Your task to perform on an android device: What's the weather going to be tomorrow? Image 0: 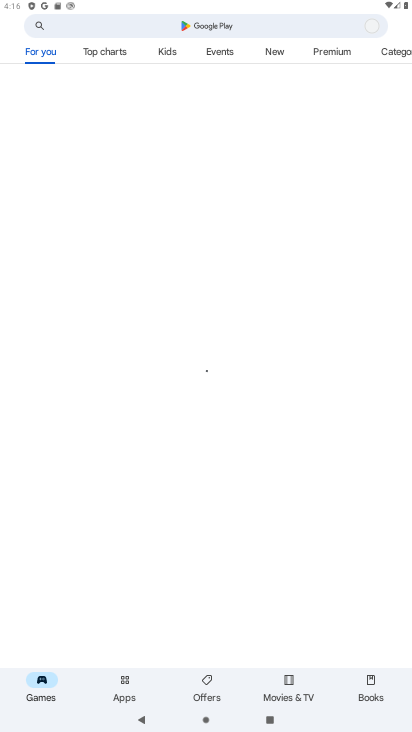
Step 0: press home button
Your task to perform on an android device: What's the weather going to be tomorrow? Image 1: 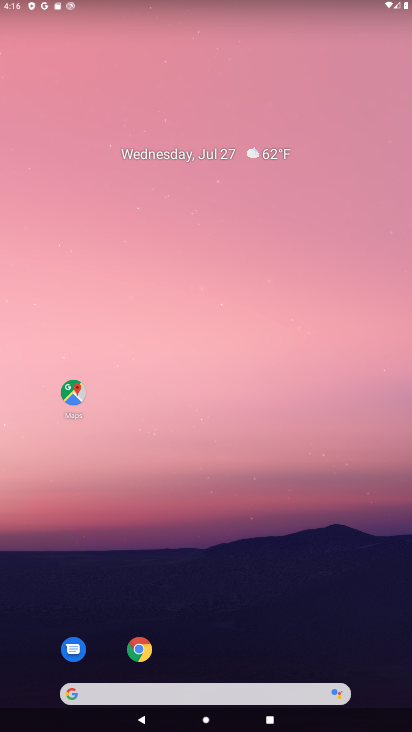
Step 1: click (223, 694)
Your task to perform on an android device: What's the weather going to be tomorrow? Image 2: 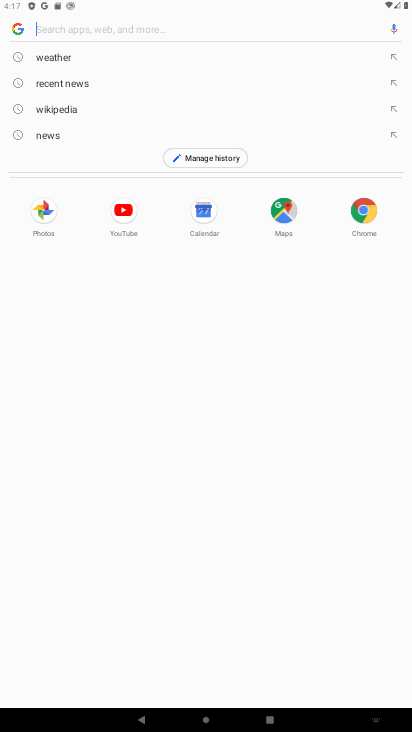
Step 2: type "What's the weather going to be tomorrow?"
Your task to perform on an android device: What's the weather going to be tomorrow? Image 3: 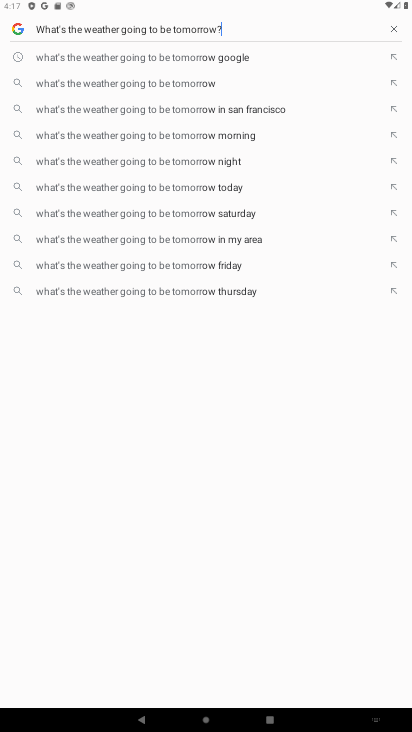
Step 3: press enter
Your task to perform on an android device: What's the weather going to be tomorrow? Image 4: 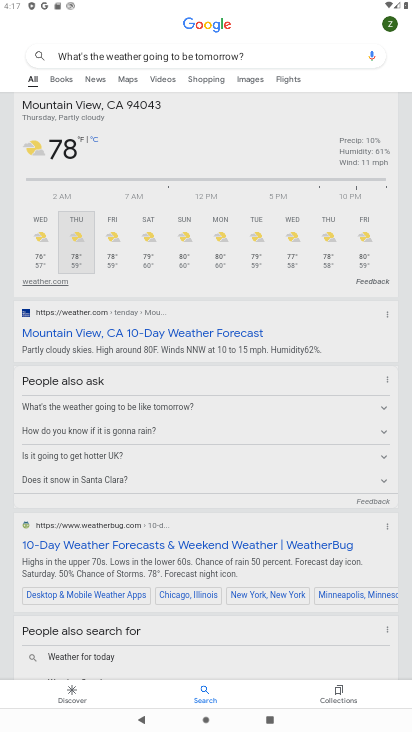
Step 4: task complete